Your task to perform on an android device: show emergency info Image 0: 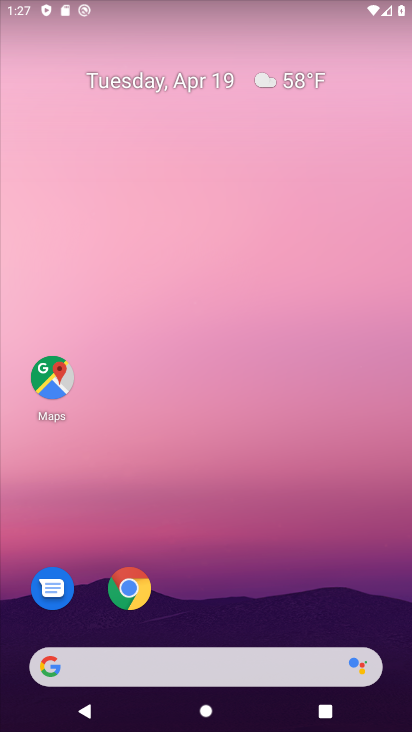
Step 0: drag from (207, 570) to (297, 49)
Your task to perform on an android device: show emergency info Image 1: 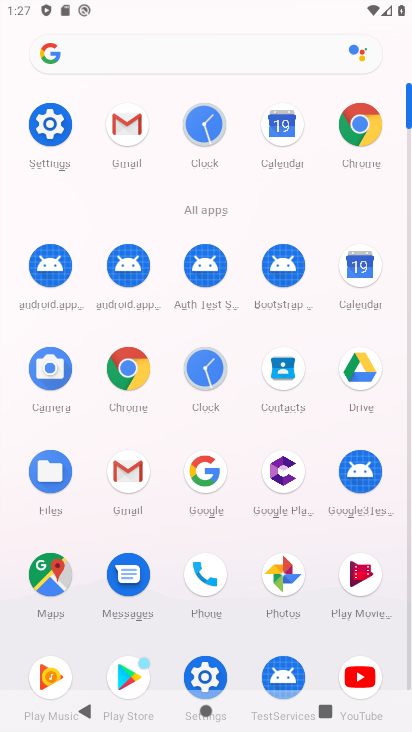
Step 1: click (53, 127)
Your task to perform on an android device: show emergency info Image 2: 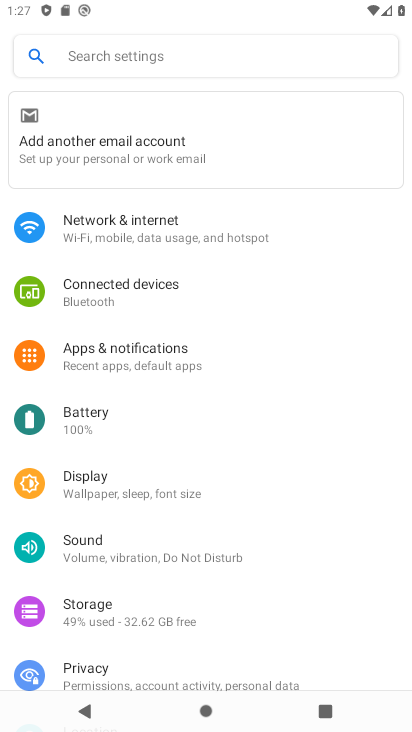
Step 2: drag from (168, 609) to (205, 156)
Your task to perform on an android device: show emergency info Image 3: 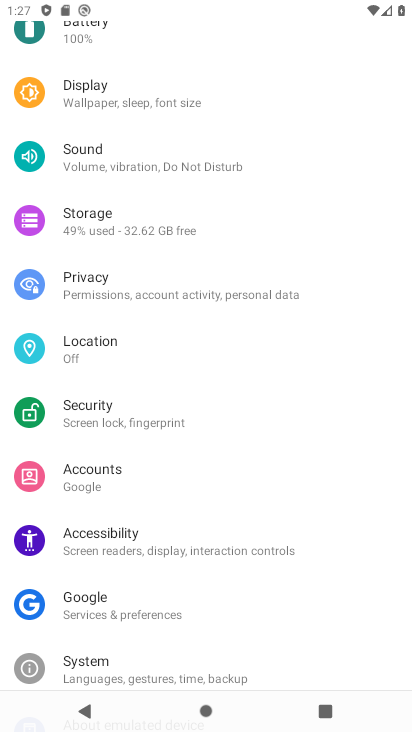
Step 3: drag from (167, 648) to (195, 207)
Your task to perform on an android device: show emergency info Image 4: 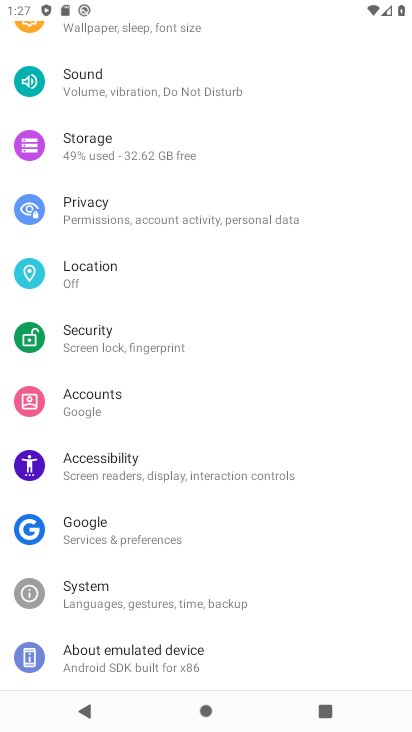
Step 4: click (152, 650)
Your task to perform on an android device: show emergency info Image 5: 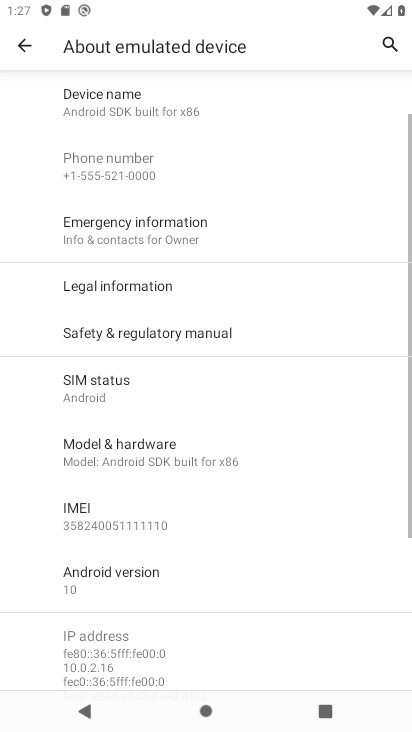
Step 5: click (192, 222)
Your task to perform on an android device: show emergency info Image 6: 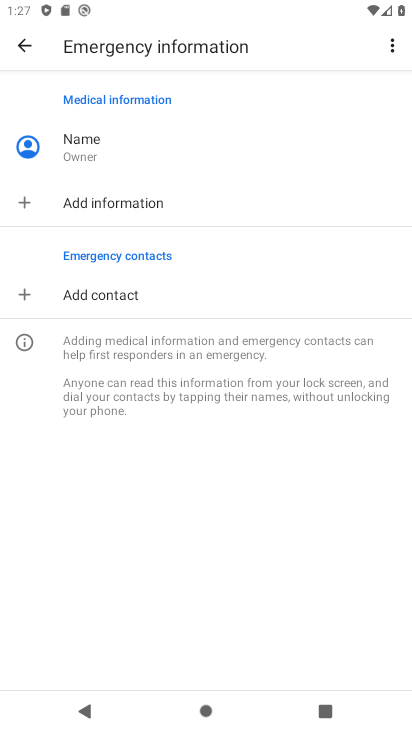
Step 6: task complete